Your task to perform on an android device: show emergency info Image 0: 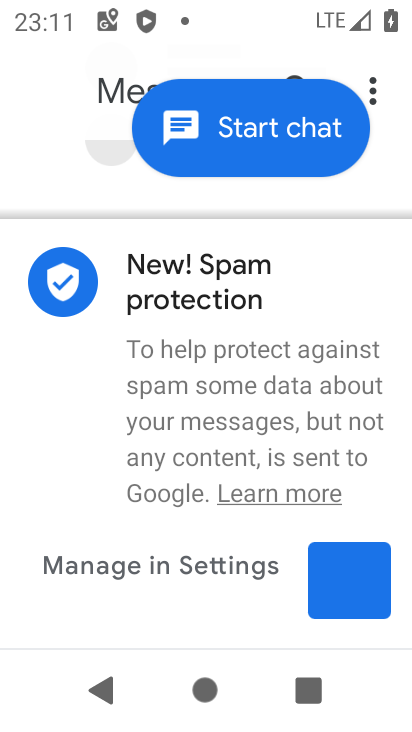
Step 0: press home button
Your task to perform on an android device: show emergency info Image 1: 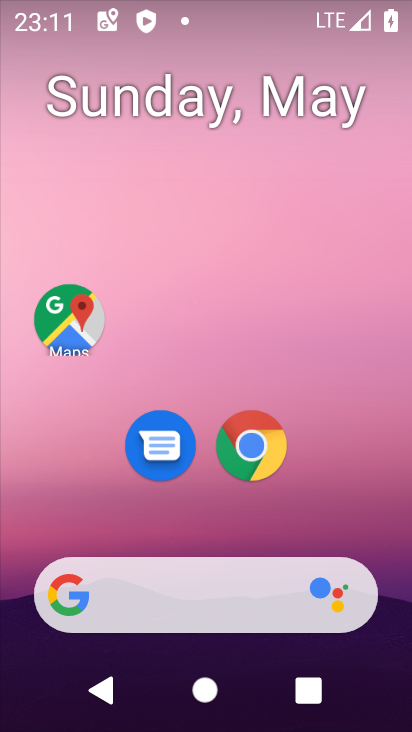
Step 1: drag from (216, 525) to (300, 96)
Your task to perform on an android device: show emergency info Image 2: 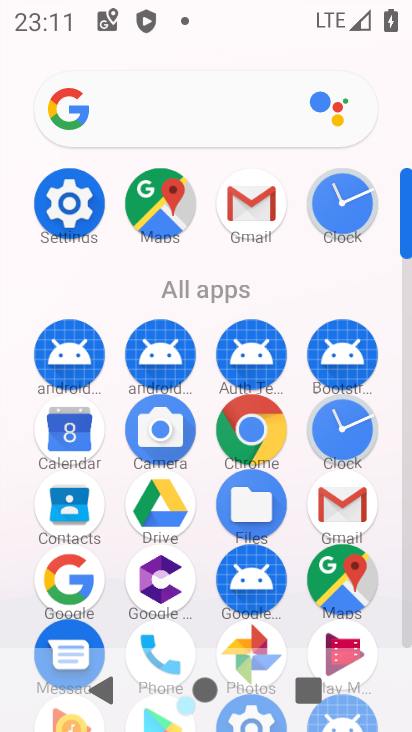
Step 2: click (77, 195)
Your task to perform on an android device: show emergency info Image 3: 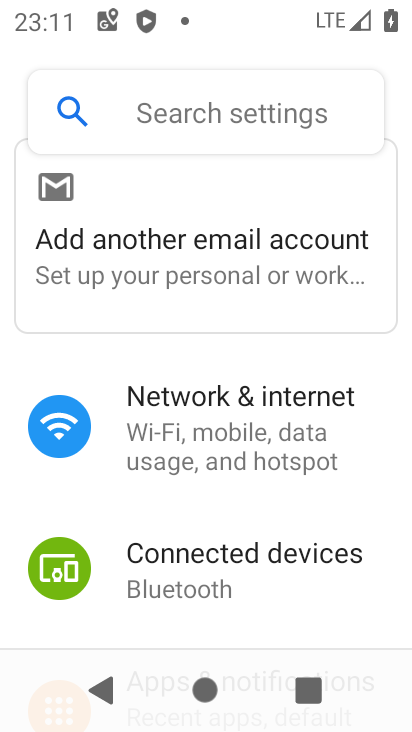
Step 3: drag from (220, 613) to (305, 9)
Your task to perform on an android device: show emergency info Image 4: 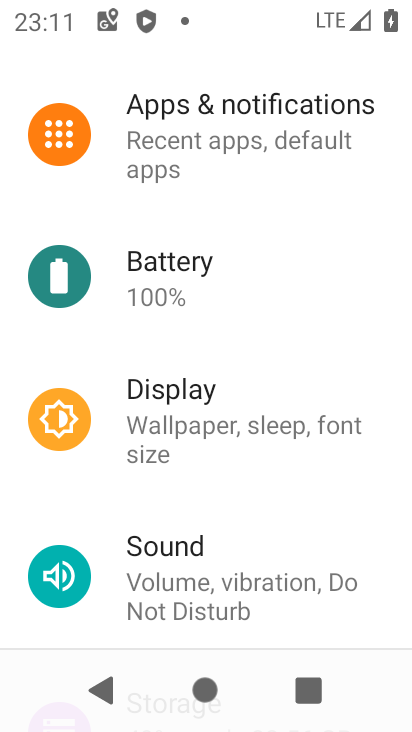
Step 4: drag from (252, 589) to (298, 31)
Your task to perform on an android device: show emergency info Image 5: 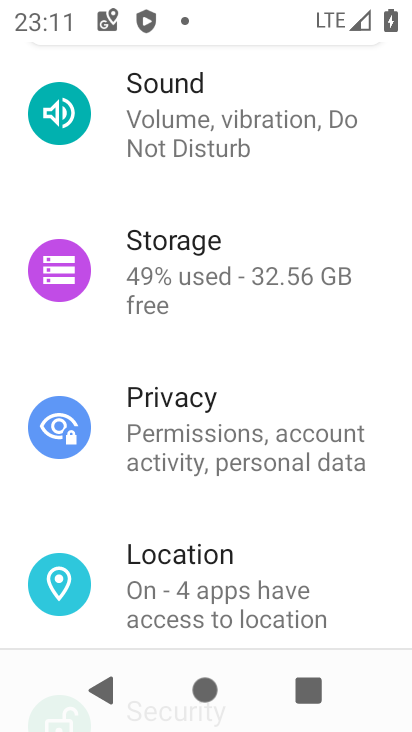
Step 5: drag from (216, 567) to (289, 5)
Your task to perform on an android device: show emergency info Image 6: 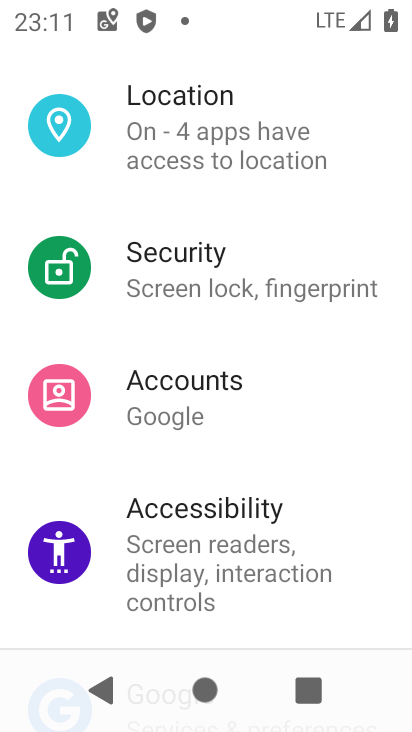
Step 6: drag from (231, 539) to (286, 8)
Your task to perform on an android device: show emergency info Image 7: 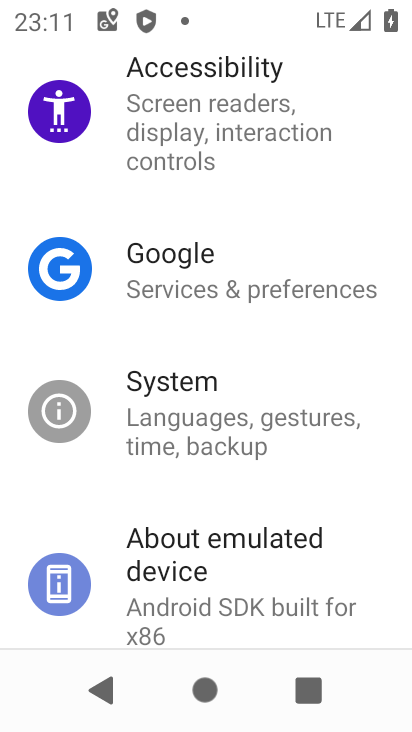
Step 7: drag from (222, 600) to (272, 83)
Your task to perform on an android device: show emergency info Image 8: 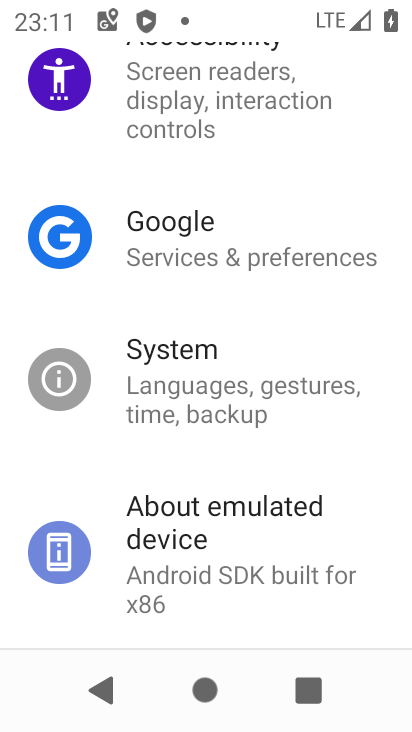
Step 8: click (257, 565)
Your task to perform on an android device: show emergency info Image 9: 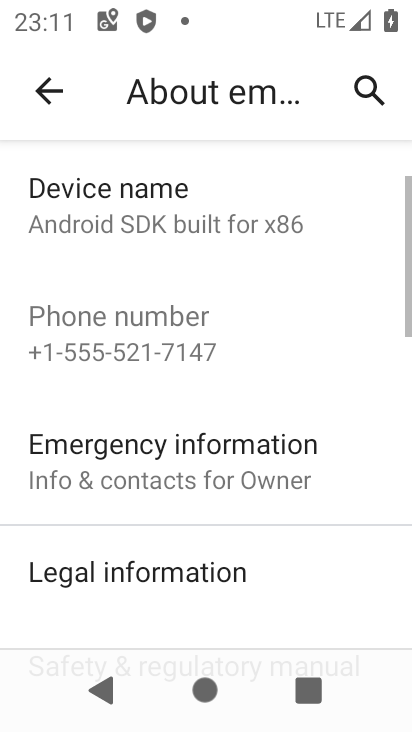
Step 9: click (244, 495)
Your task to perform on an android device: show emergency info Image 10: 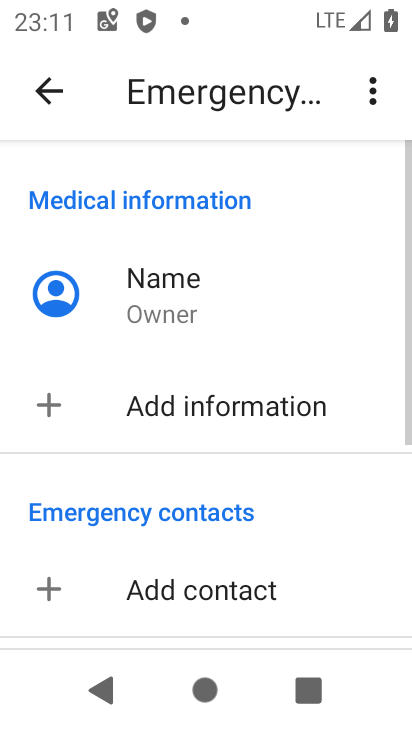
Step 10: task complete